Your task to perform on an android device: set the stopwatch Image 0: 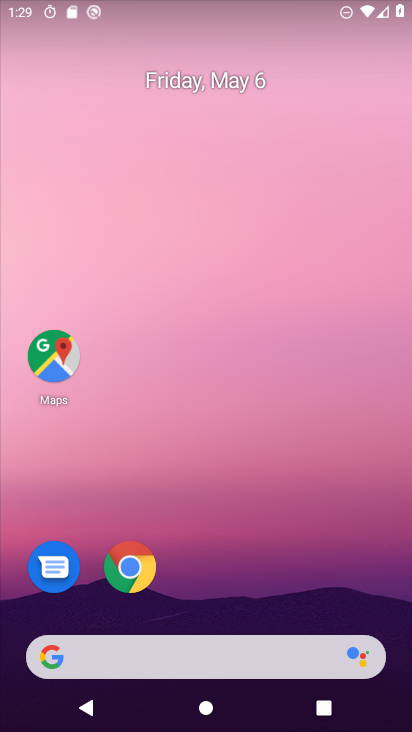
Step 0: drag from (259, 663) to (256, 266)
Your task to perform on an android device: set the stopwatch Image 1: 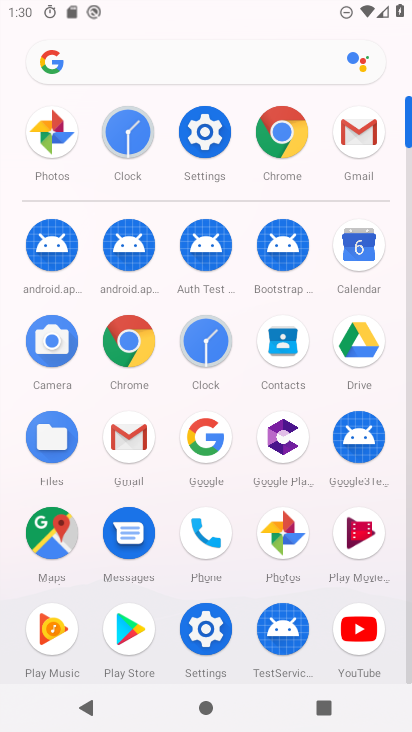
Step 1: click (210, 146)
Your task to perform on an android device: set the stopwatch Image 2: 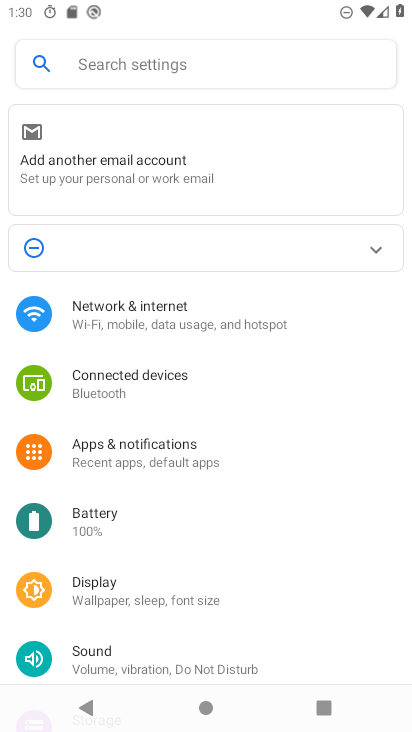
Step 2: press home button
Your task to perform on an android device: set the stopwatch Image 3: 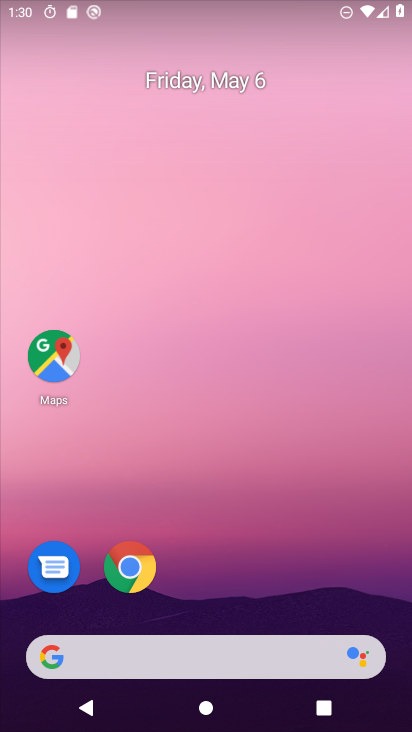
Step 3: drag from (282, 672) to (221, 140)
Your task to perform on an android device: set the stopwatch Image 4: 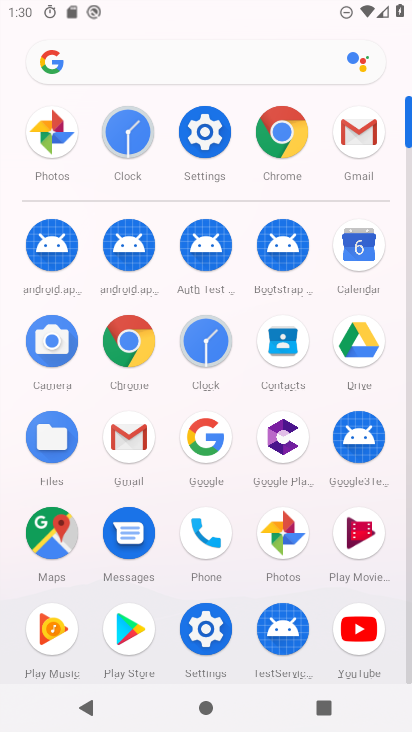
Step 4: click (215, 326)
Your task to perform on an android device: set the stopwatch Image 5: 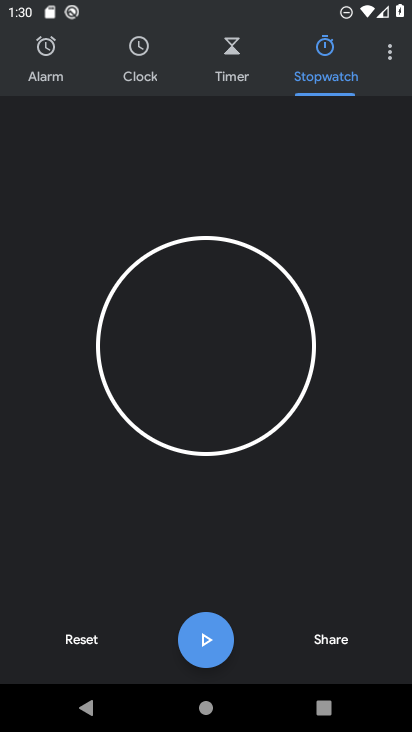
Step 5: click (393, 71)
Your task to perform on an android device: set the stopwatch Image 6: 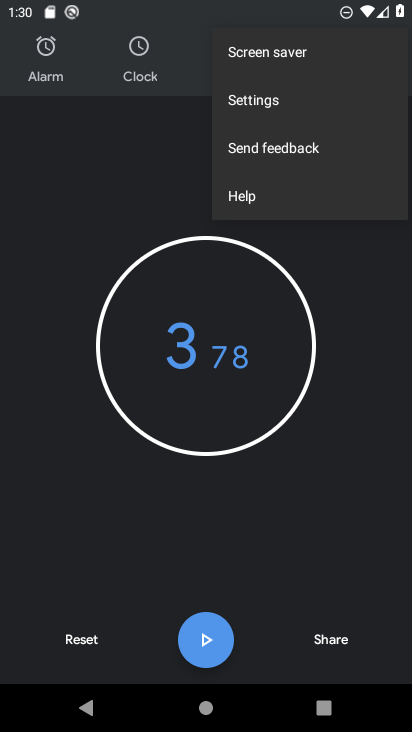
Step 6: click (286, 90)
Your task to perform on an android device: set the stopwatch Image 7: 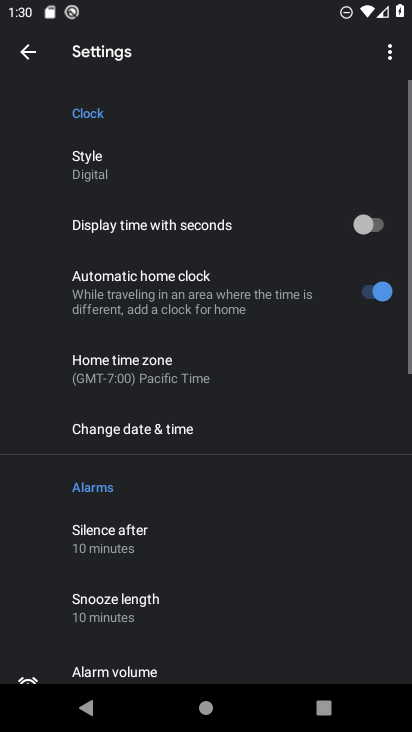
Step 7: click (38, 54)
Your task to perform on an android device: set the stopwatch Image 8: 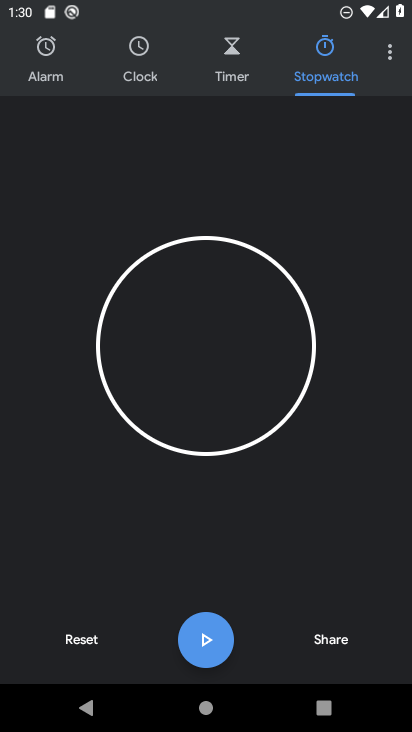
Step 8: click (215, 641)
Your task to perform on an android device: set the stopwatch Image 9: 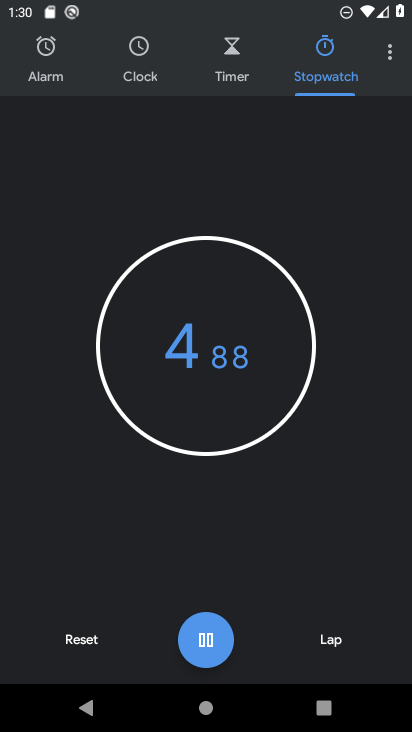
Step 9: click (215, 641)
Your task to perform on an android device: set the stopwatch Image 10: 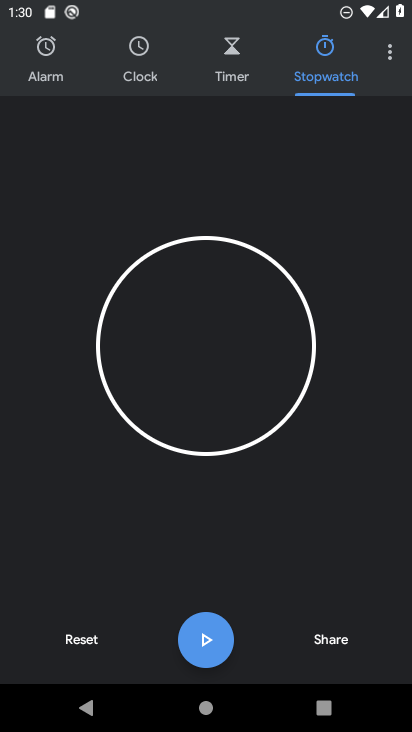
Step 10: task complete